Your task to perform on an android device: clear history in the chrome app Image 0: 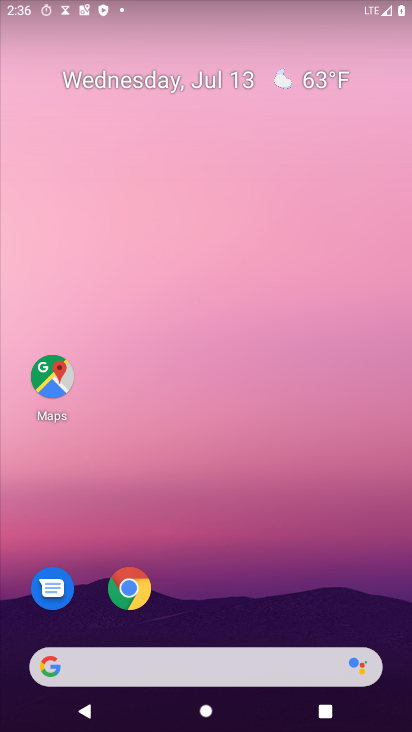
Step 0: click (144, 584)
Your task to perform on an android device: clear history in the chrome app Image 1: 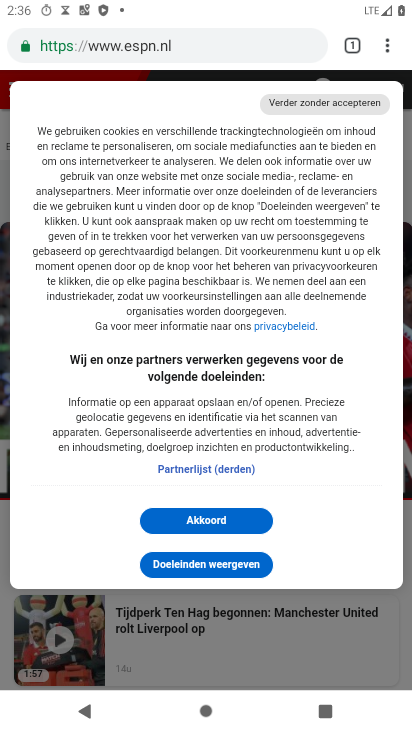
Step 1: drag from (385, 55) to (241, 266)
Your task to perform on an android device: clear history in the chrome app Image 2: 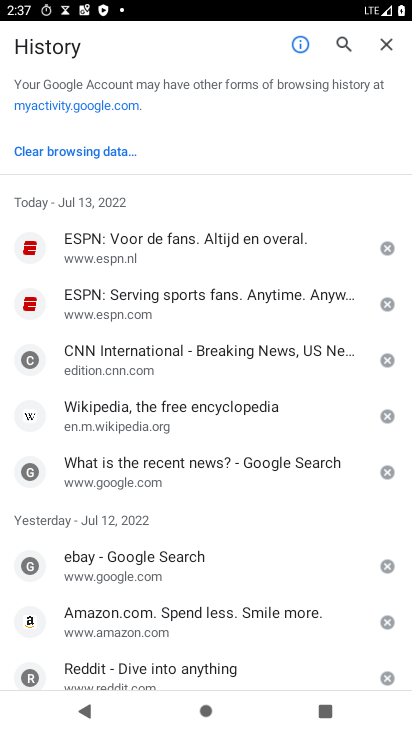
Step 2: click (104, 152)
Your task to perform on an android device: clear history in the chrome app Image 3: 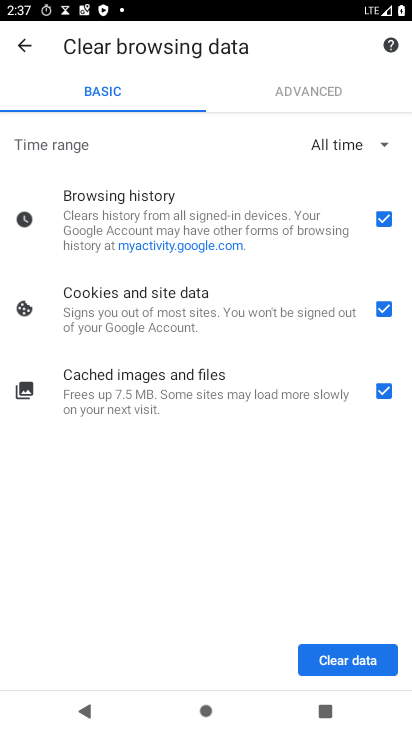
Step 3: click (347, 659)
Your task to perform on an android device: clear history in the chrome app Image 4: 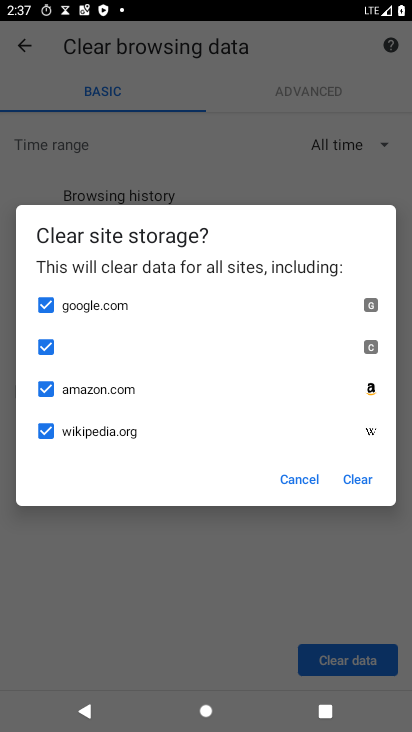
Step 4: click (349, 480)
Your task to perform on an android device: clear history in the chrome app Image 5: 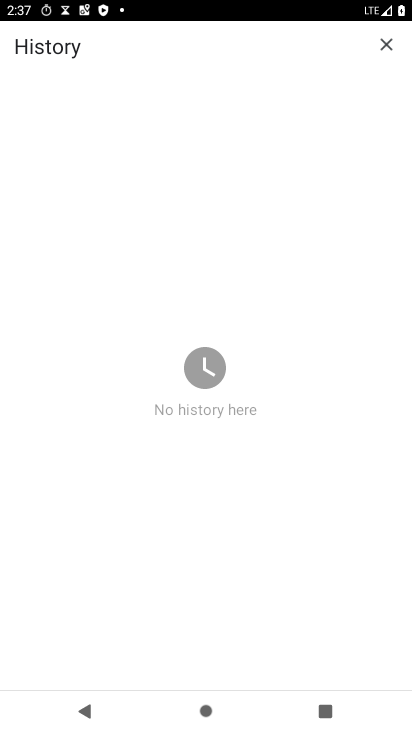
Step 5: task complete